Your task to perform on an android device: Is it going to rain tomorrow? Image 0: 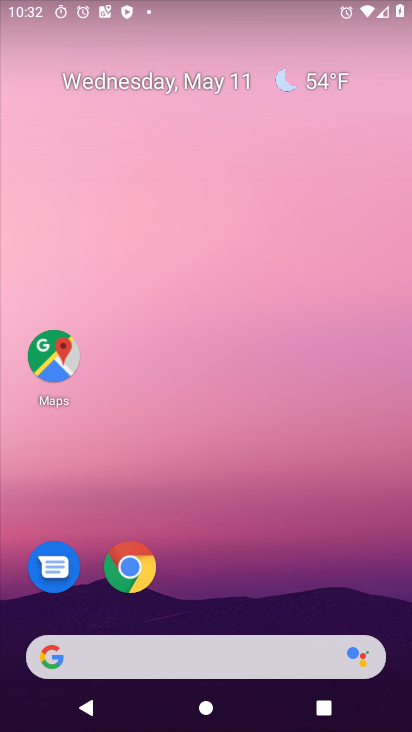
Step 0: drag from (224, 564) to (217, 230)
Your task to perform on an android device: Is it going to rain tomorrow? Image 1: 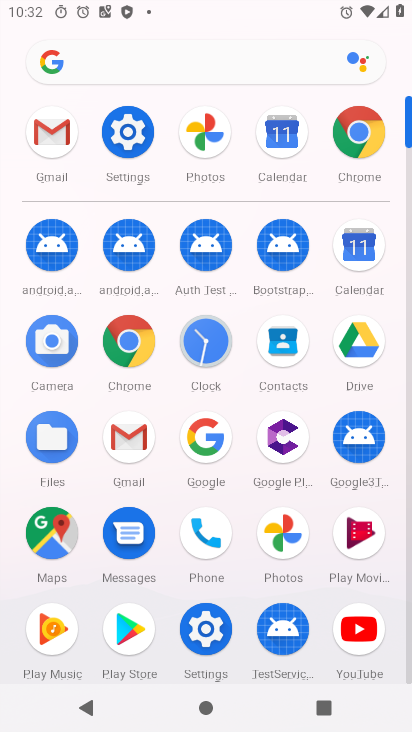
Step 1: click (154, 56)
Your task to perform on an android device: Is it going to rain tomorrow? Image 2: 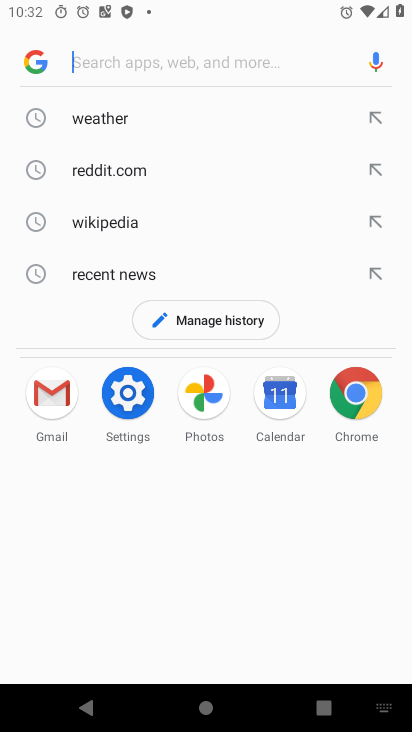
Step 2: click (113, 121)
Your task to perform on an android device: Is it going to rain tomorrow? Image 3: 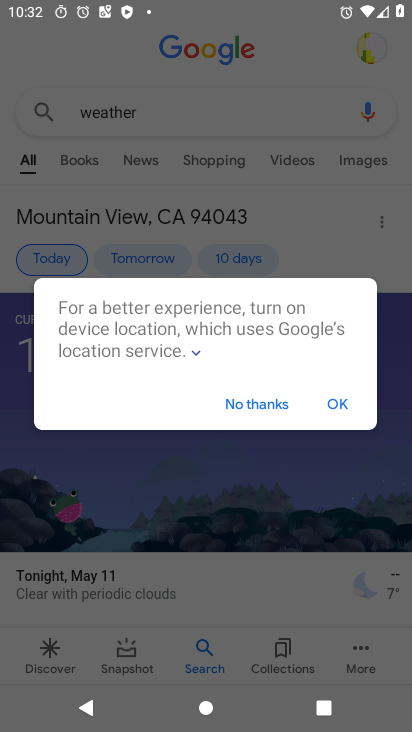
Step 3: click (331, 403)
Your task to perform on an android device: Is it going to rain tomorrow? Image 4: 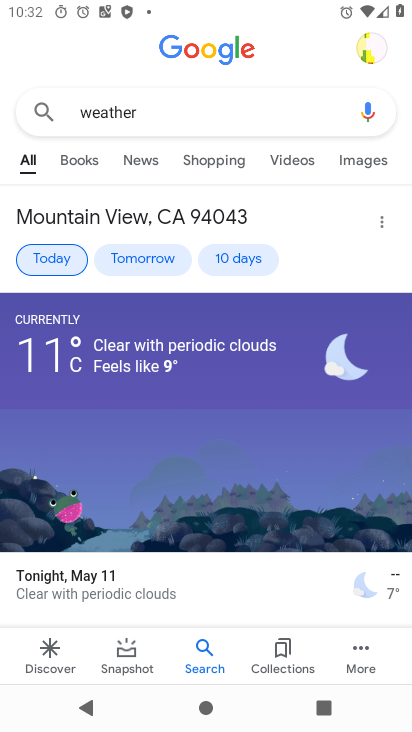
Step 4: click (147, 266)
Your task to perform on an android device: Is it going to rain tomorrow? Image 5: 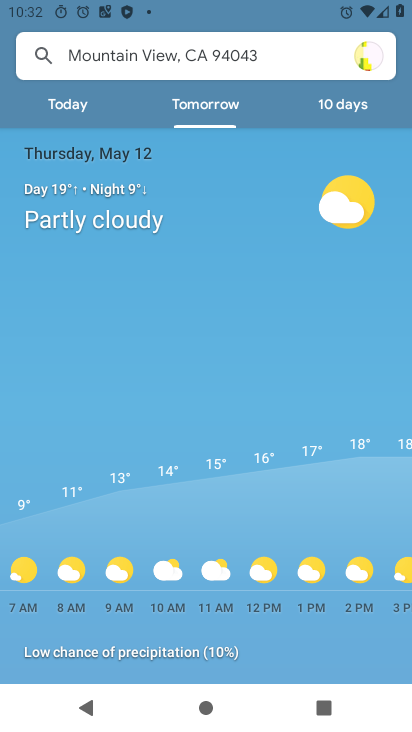
Step 5: task complete